Your task to perform on an android device: manage bookmarks in the chrome app Image 0: 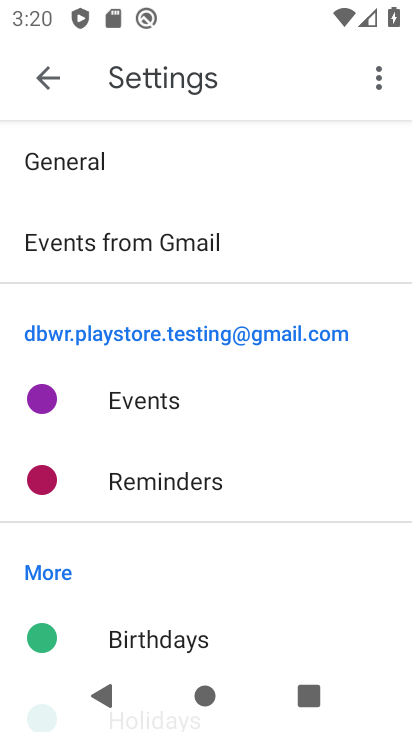
Step 0: press home button
Your task to perform on an android device: manage bookmarks in the chrome app Image 1: 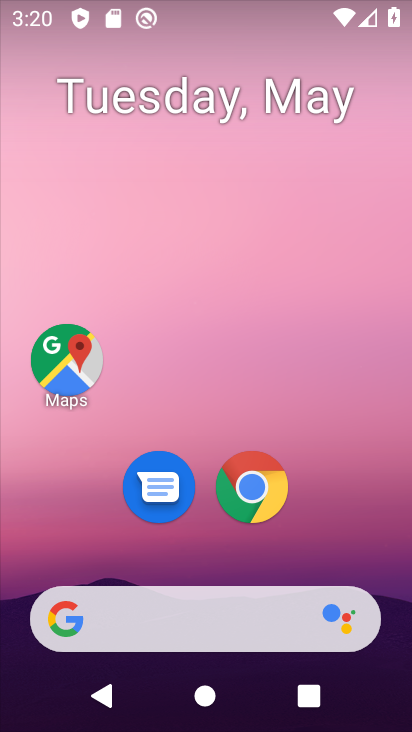
Step 1: click (251, 478)
Your task to perform on an android device: manage bookmarks in the chrome app Image 2: 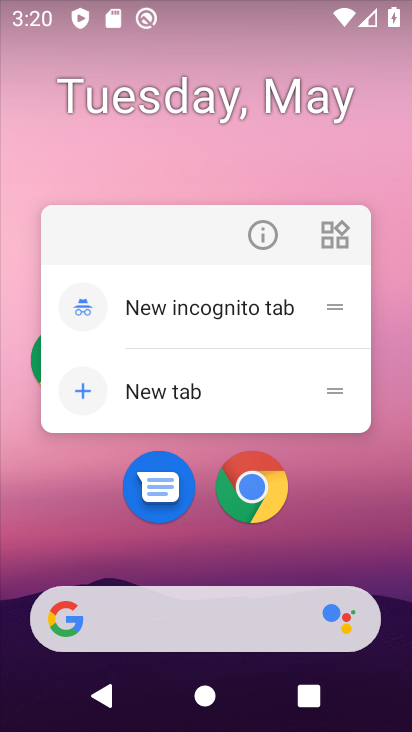
Step 2: click (245, 485)
Your task to perform on an android device: manage bookmarks in the chrome app Image 3: 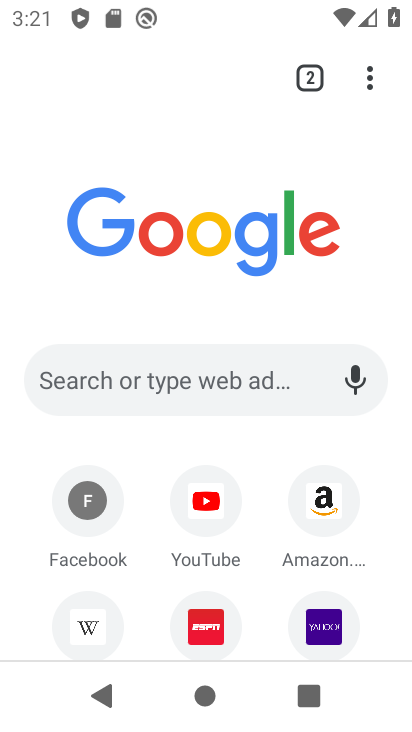
Step 3: click (364, 76)
Your task to perform on an android device: manage bookmarks in the chrome app Image 4: 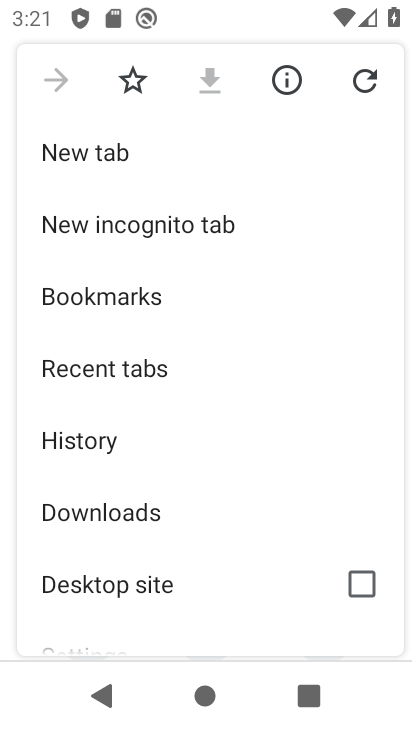
Step 4: click (169, 293)
Your task to perform on an android device: manage bookmarks in the chrome app Image 5: 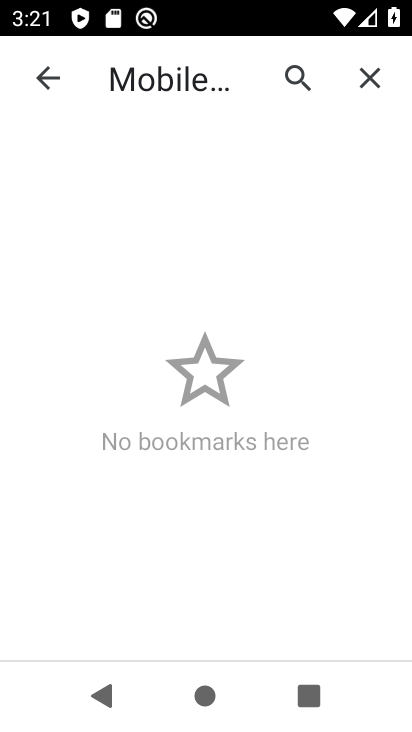
Step 5: click (372, 77)
Your task to perform on an android device: manage bookmarks in the chrome app Image 6: 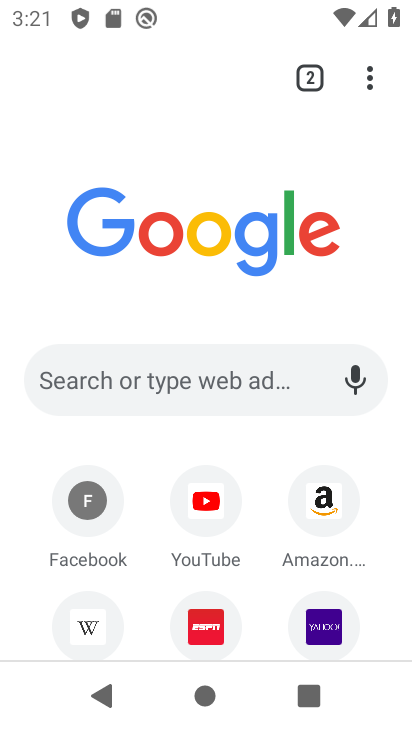
Step 6: task complete